Your task to perform on an android device: Check the weather Image 0: 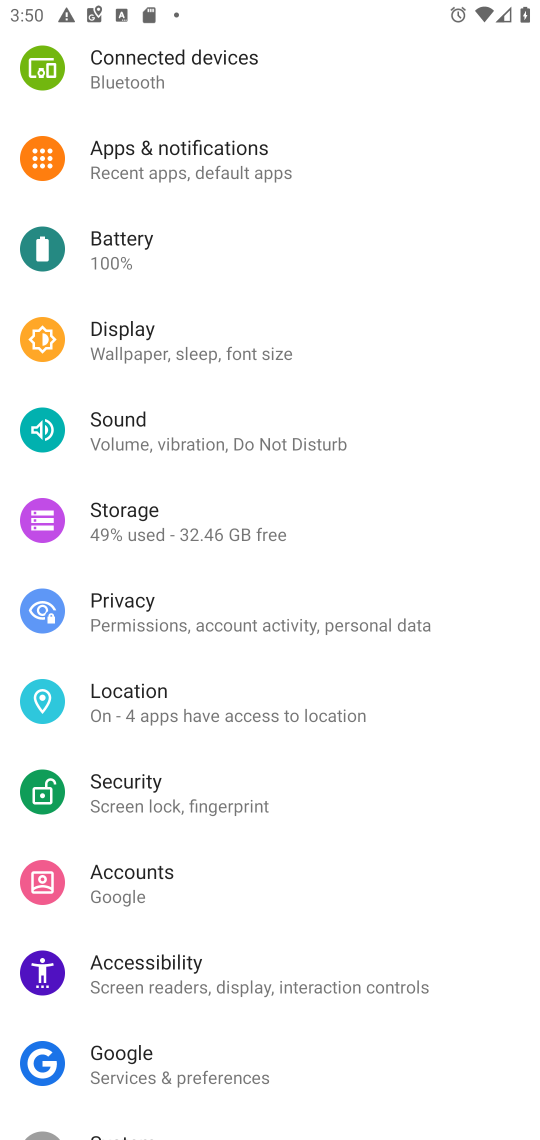
Step 0: press home button
Your task to perform on an android device: Check the weather Image 1: 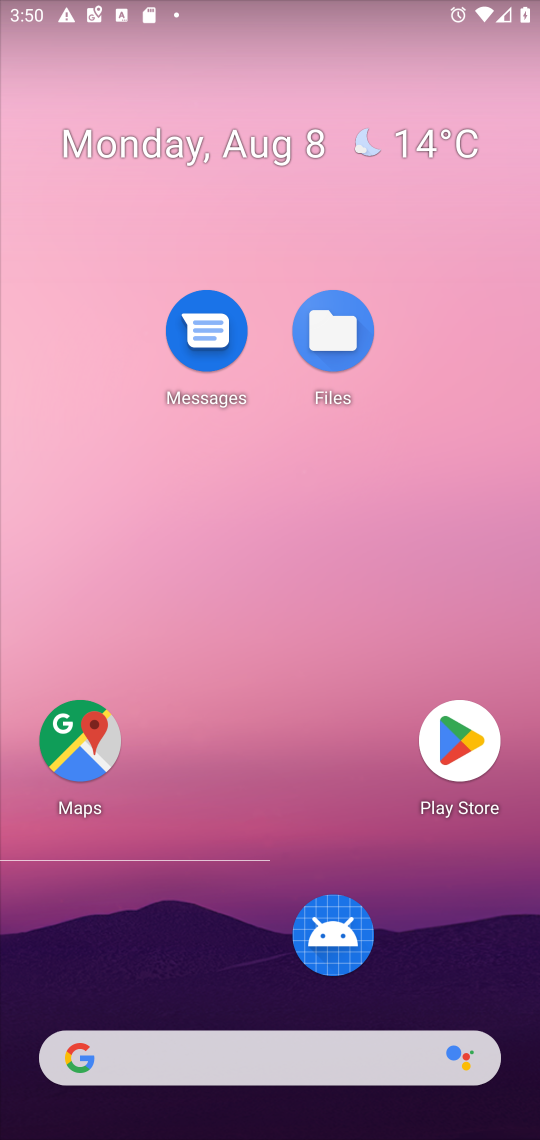
Step 1: drag from (238, 1080) to (253, 159)
Your task to perform on an android device: Check the weather Image 2: 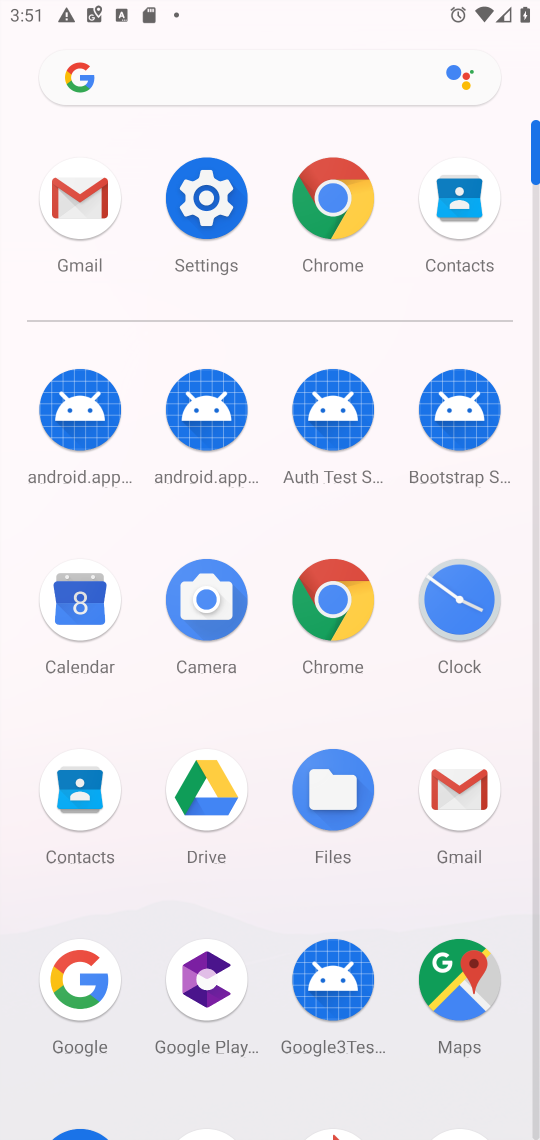
Step 2: click (342, 594)
Your task to perform on an android device: Check the weather Image 3: 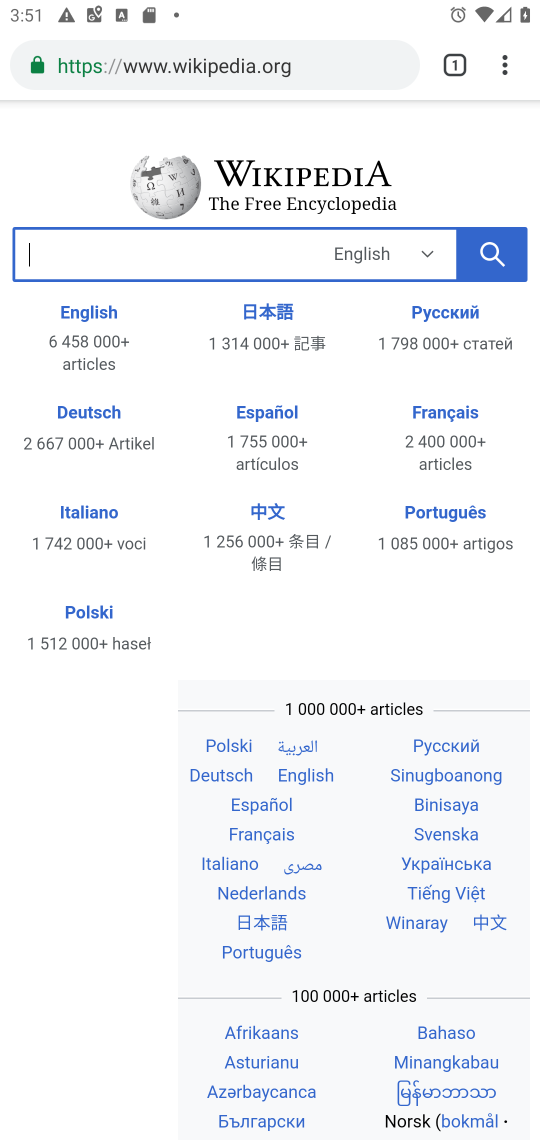
Step 3: click (287, 50)
Your task to perform on an android device: Check the weather Image 4: 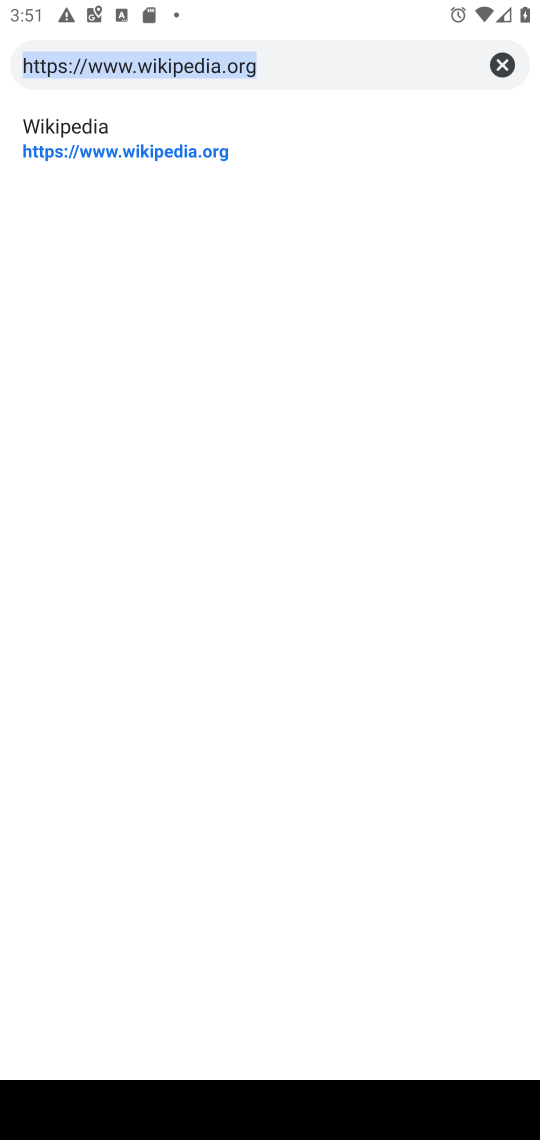
Step 4: type "check the weather"
Your task to perform on an android device: Check the weather Image 5: 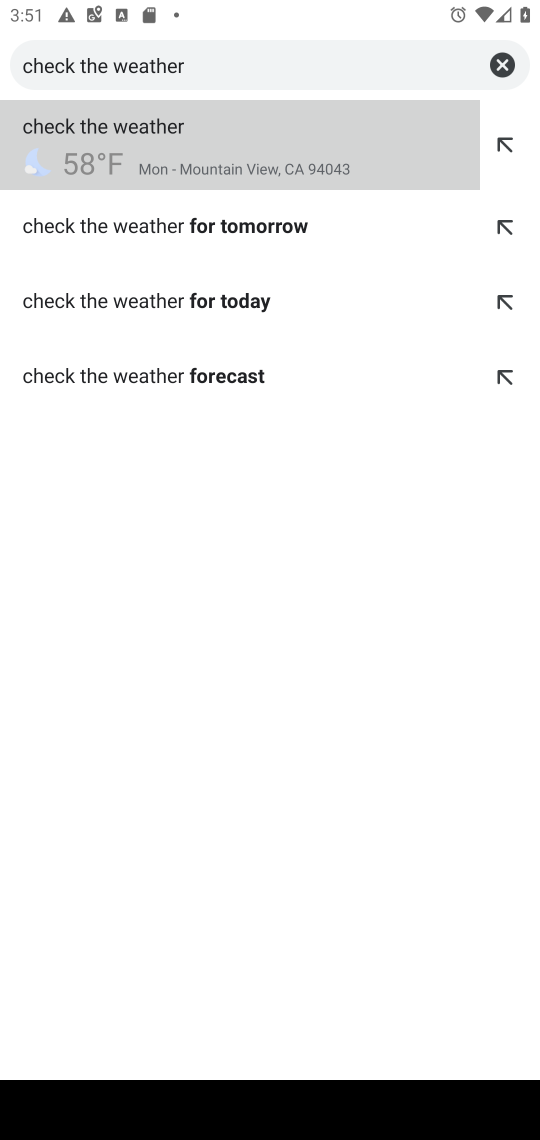
Step 5: click (325, 165)
Your task to perform on an android device: Check the weather Image 6: 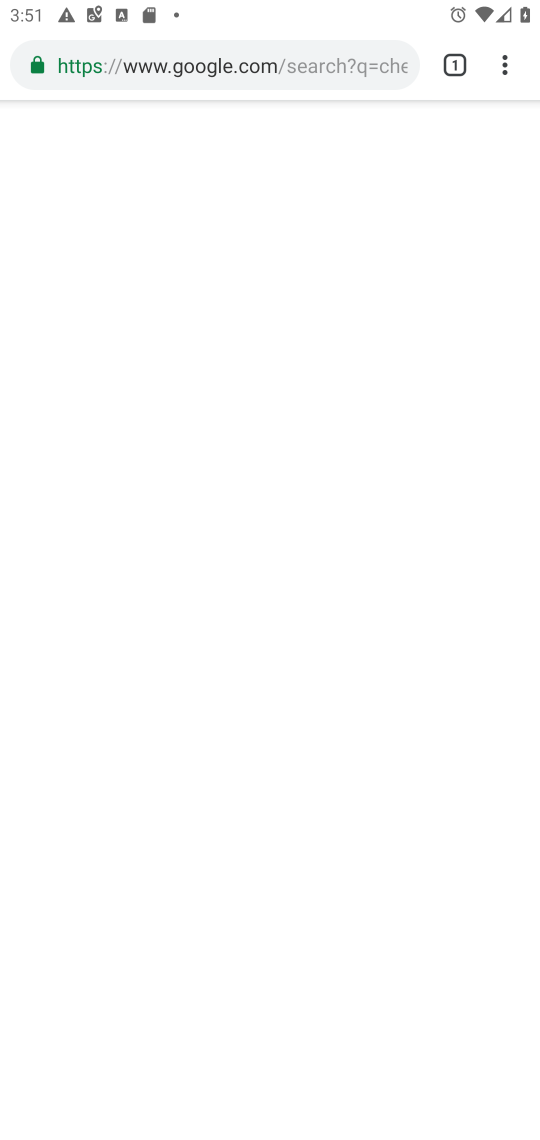
Step 6: task complete